Your task to perform on an android device: Search for Mexican restaurants on Maps Image 0: 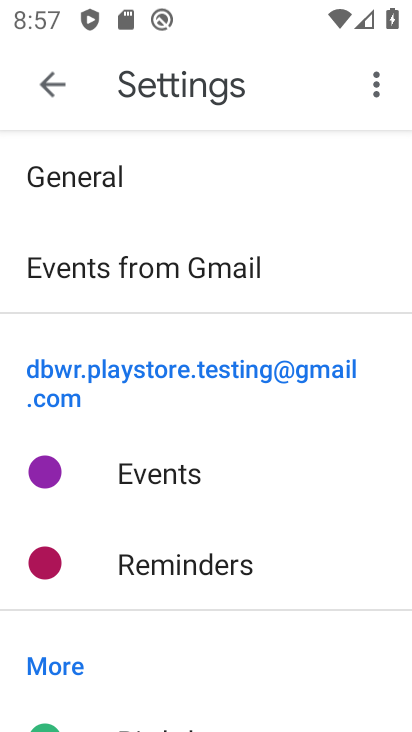
Step 0: press home button
Your task to perform on an android device: Search for Mexican restaurants on Maps Image 1: 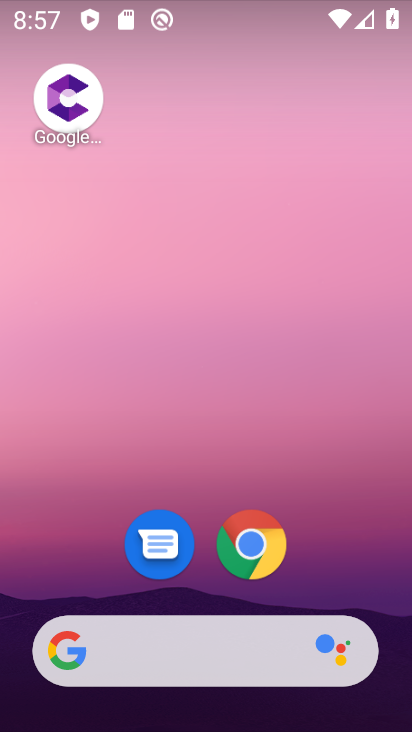
Step 1: drag from (92, 597) to (200, 72)
Your task to perform on an android device: Search for Mexican restaurants on Maps Image 2: 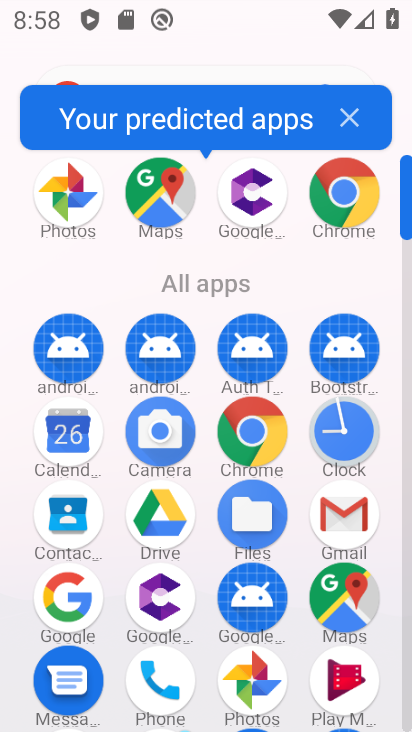
Step 2: click (329, 602)
Your task to perform on an android device: Search for Mexican restaurants on Maps Image 3: 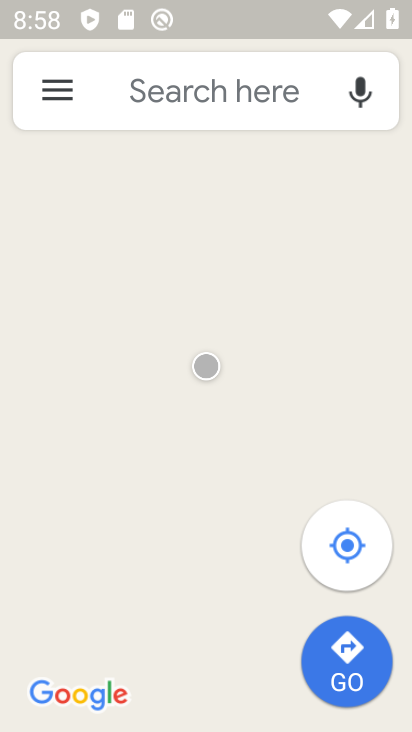
Step 3: click (203, 83)
Your task to perform on an android device: Search for Mexican restaurants on Maps Image 4: 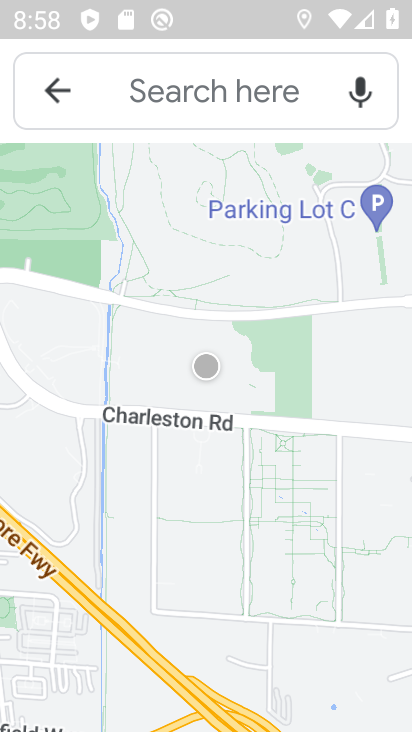
Step 4: click (191, 101)
Your task to perform on an android device: Search for Mexican restaurants on Maps Image 5: 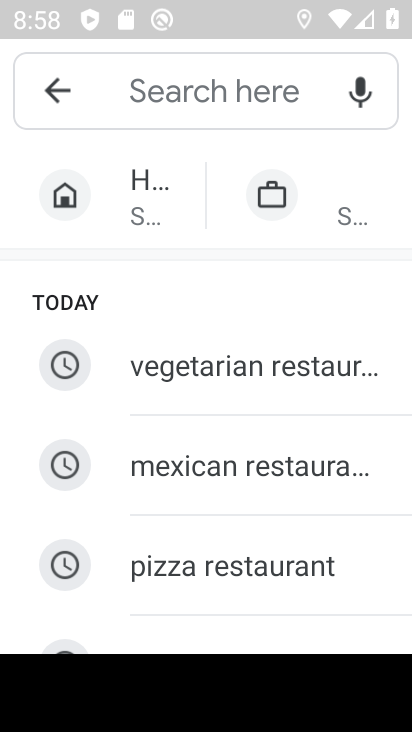
Step 5: type "Mexican restaurants"
Your task to perform on an android device: Search for Mexican restaurants on Maps Image 6: 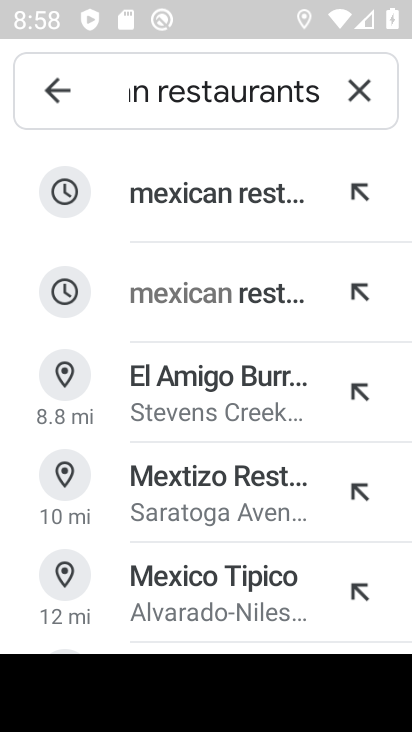
Step 6: click (238, 199)
Your task to perform on an android device: Search for Mexican restaurants on Maps Image 7: 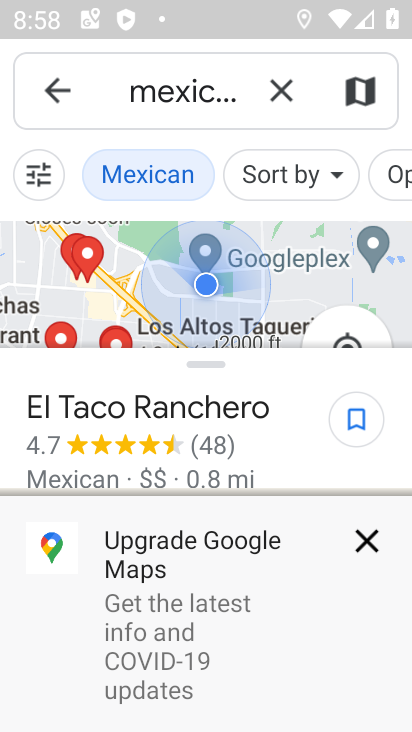
Step 7: click (372, 551)
Your task to perform on an android device: Search for Mexican restaurants on Maps Image 8: 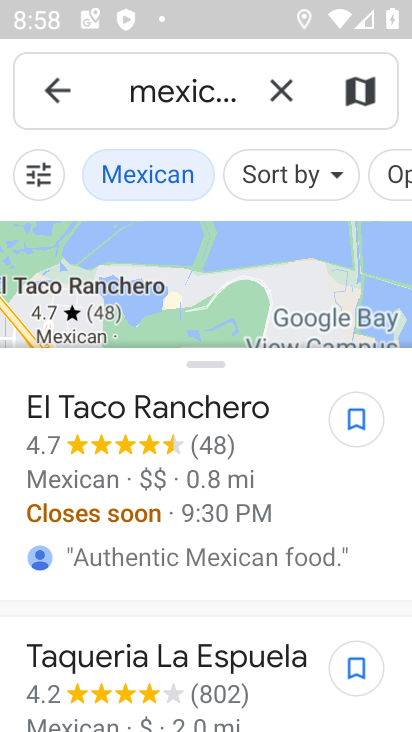
Step 8: task complete